Your task to perform on an android device: allow cookies in the chrome app Image 0: 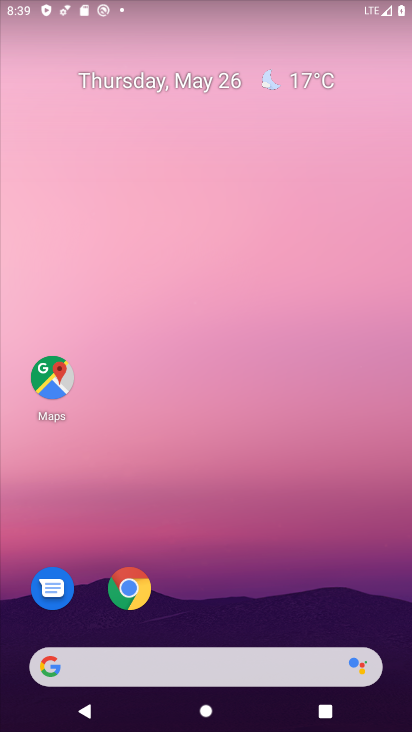
Step 0: click (125, 585)
Your task to perform on an android device: allow cookies in the chrome app Image 1: 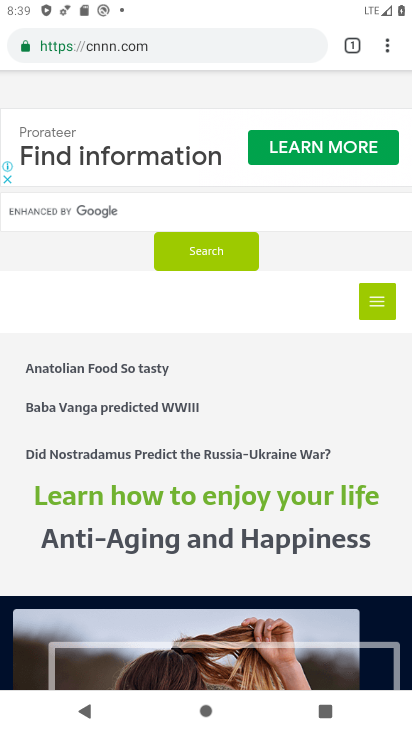
Step 1: click (384, 52)
Your task to perform on an android device: allow cookies in the chrome app Image 2: 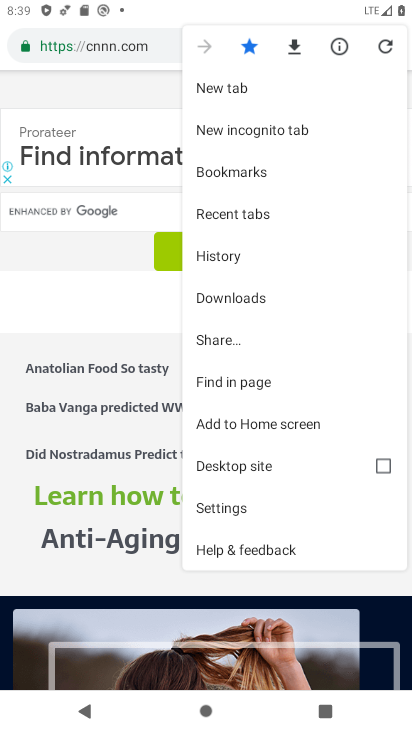
Step 2: click (203, 509)
Your task to perform on an android device: allow cookies in the chrome app Image 3: 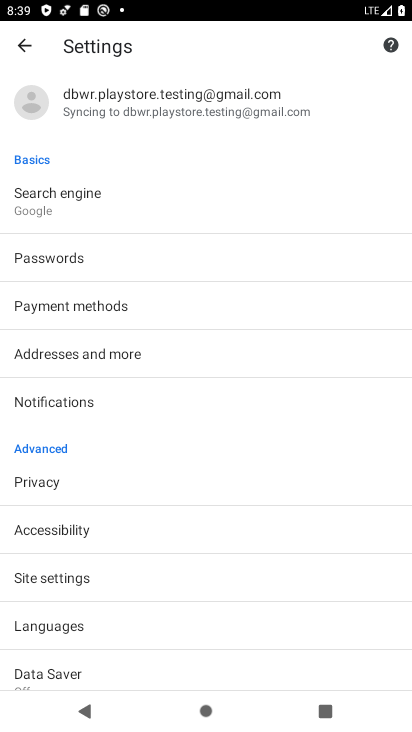
Step 3: click (73, 582)
Your task to perform on an android device: allow cookies in the chrome app Image 4: 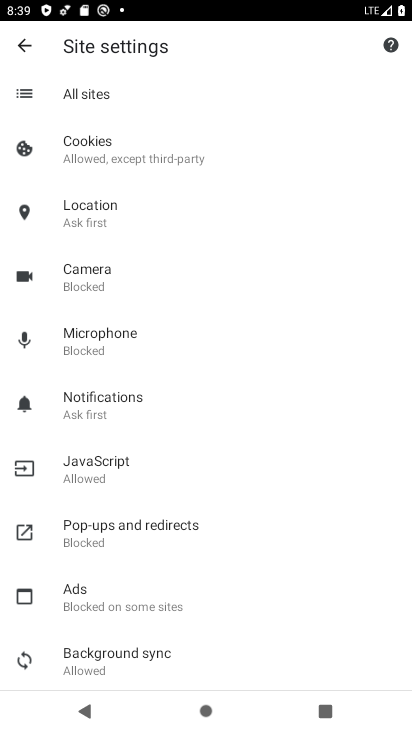
Step 4: click (83, 146)
Your task to perform on an android device: allow cookies in the chrome app Image 5: 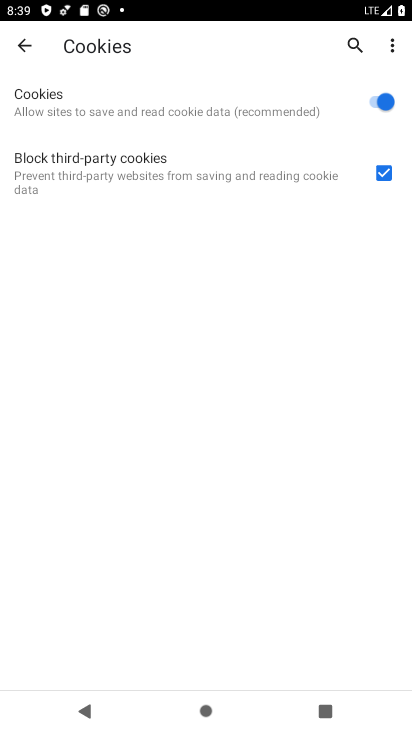
Step 5: task complete